Your task to perform on an android device: Open Youtube and go to "Your channel" Image 0: 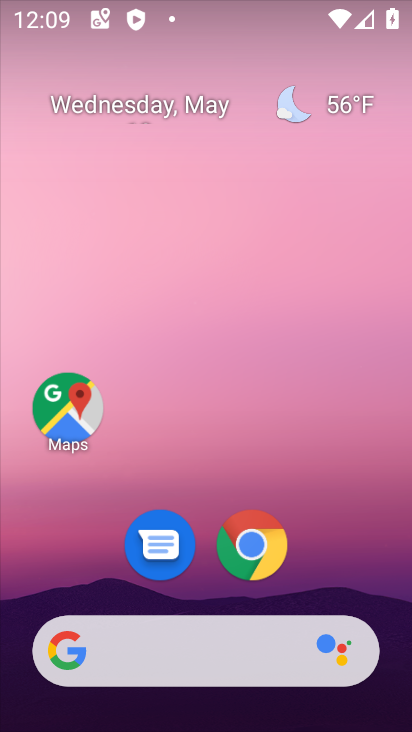
Step 0: drag from (222, 638) to (310, 206)
Your task to perform on an android device: Open Youtube and go to "Your channel" Image 1: 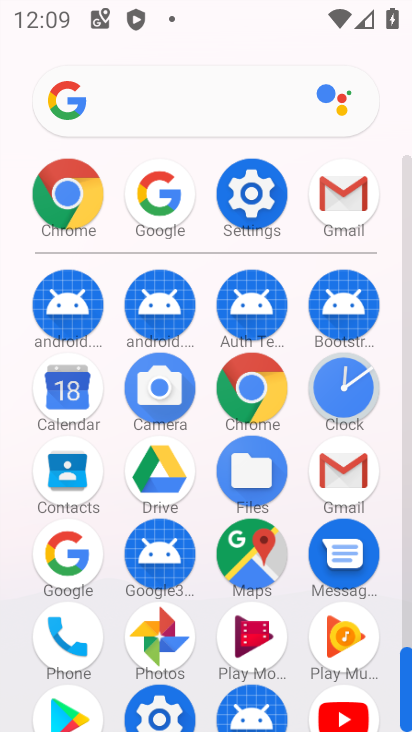
Step 1: click (363, 711)
Your task to perform on an android device: Open Youtube and go to "Your channel" Image 2: 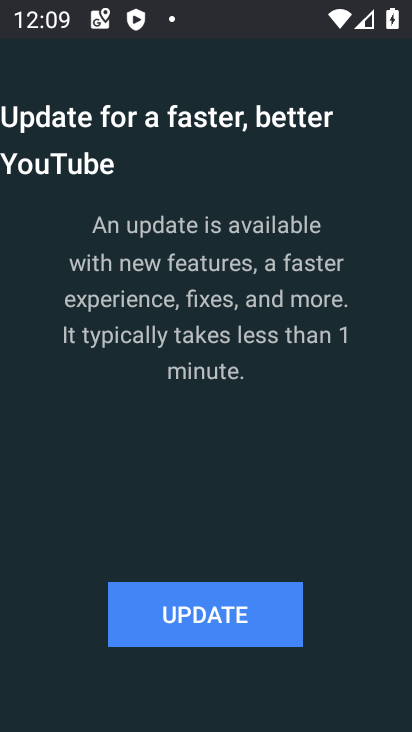
Step 2: click (248, 608)
Your task to perform on an android device: Open Youtube and go to "Your channel" Image 3: 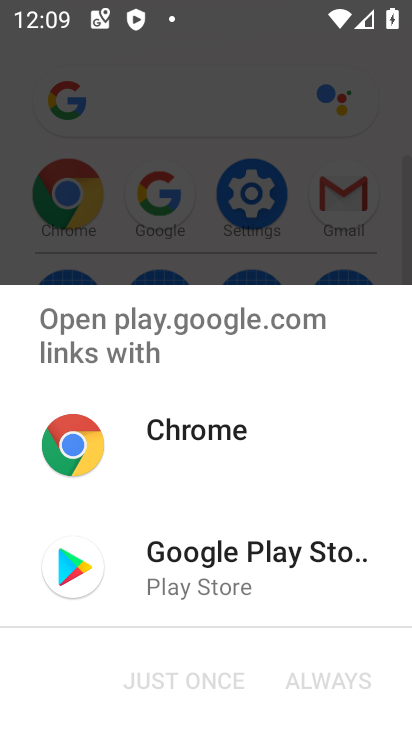
Step 3: click (243, 550)
Your task to perform on an android device: Open Youtube and go to "Your channel" Image 4: 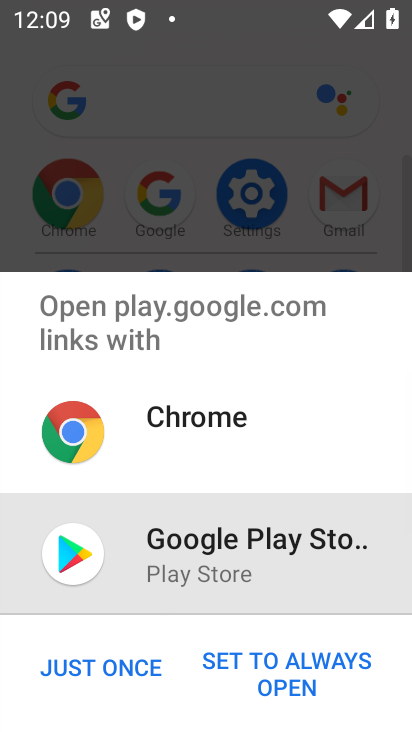
Step 4: click (126, 666)
Your task to perform on an android device: Open Youtube and go to "Your channel" Image 5: 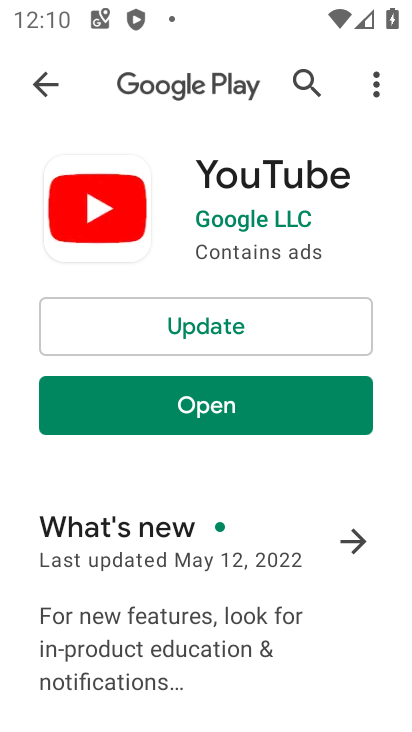
Step 5: click (258, 331)
Your task to perform on an android device: Open Youtube and go to "Your channel" Image 6: 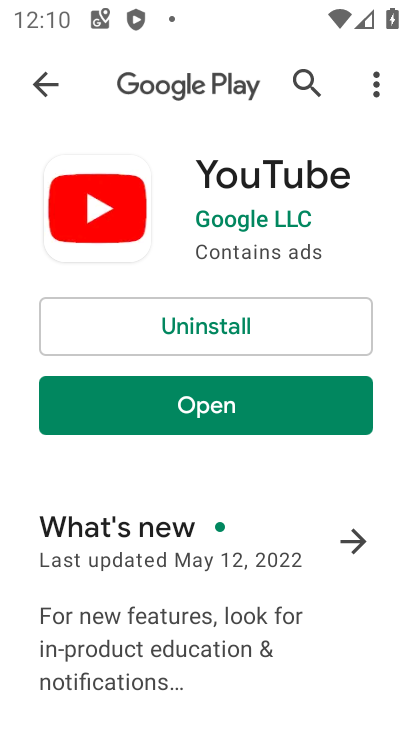
Step 6: task complete